Your task to perform on an android device: turn smart compose on in the gmail app Image 0: 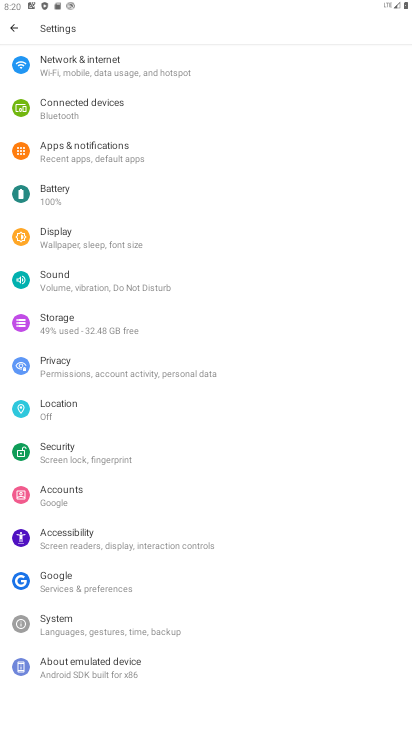
Step 0: press home button
Your task to perform on an android device: turn smart compose on in the gmail app Image 1: 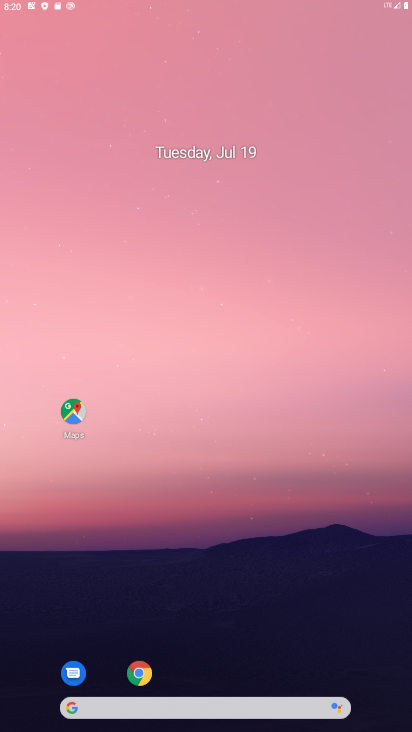
Step 1: drag from (395, 674) to (251, 13)
Your task to perform on an android device: turn smart compose on in the gmail app Image 2: 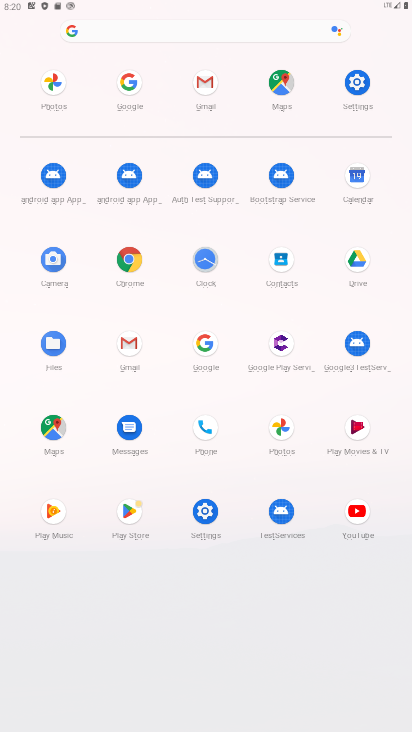
Step 2: click (113, 352)
Your task to perform on an android device: turn smart compose on in the gmail app Image 3: 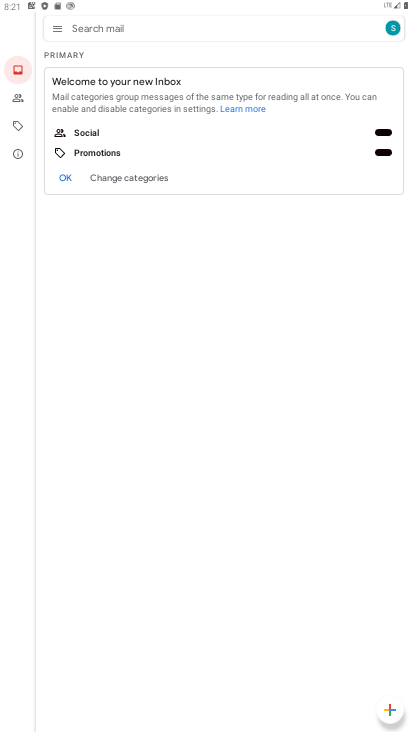
Step 3: click (52, 30)
Your task to perform on an android device: turn smart compose on in the gmail app Image 4: 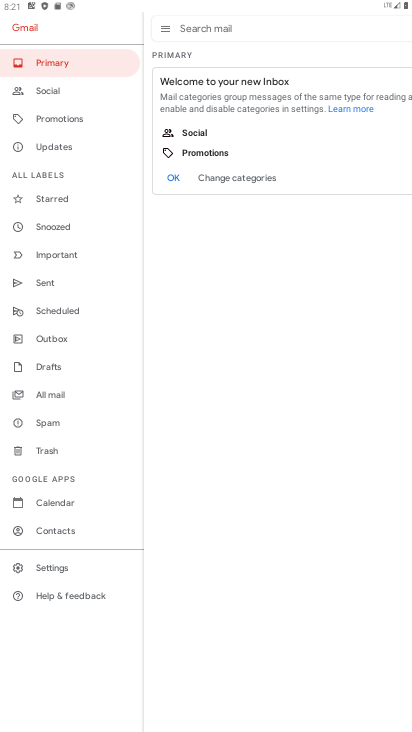
Step 4: click (44, 568)
Your task to perform on an android device: turn smart compose on in the gmail app Image 5: 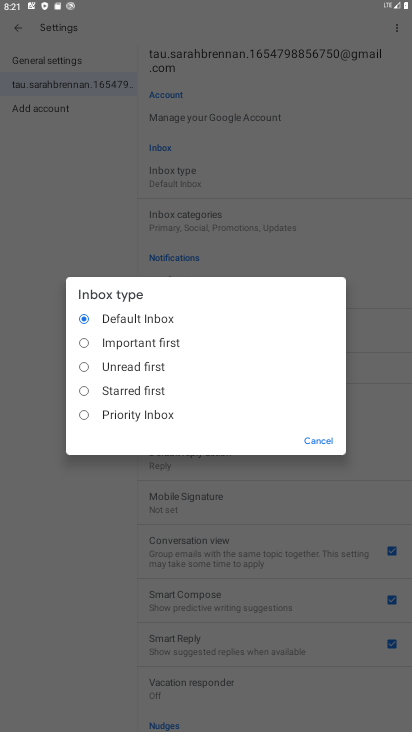
Step 5: click (320, 444)
Your task to perform on an android device: turn smart compose on in the gmail app Image 6: 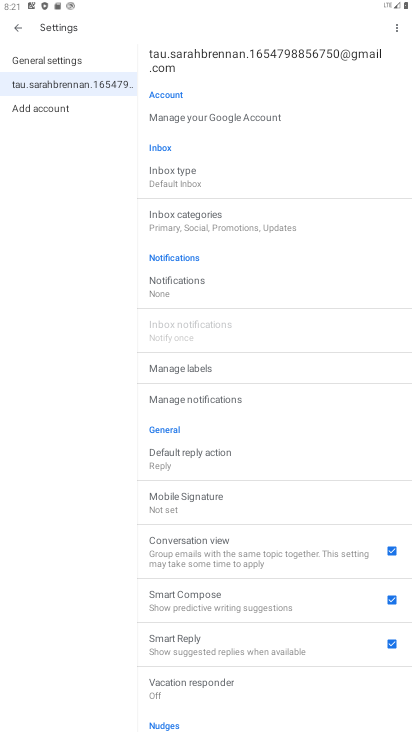
Step 6: task complete